Your task to perform on an android device: turn on priority inbox in the gmail app Image 0: 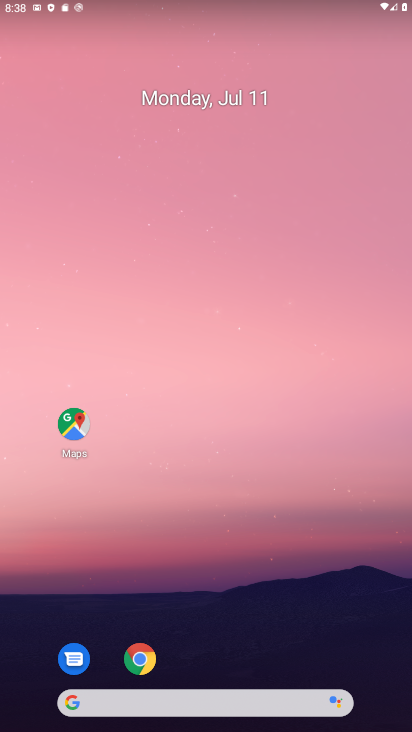
Step 0: drag from (207, 716) to (160, 168)
Your task to perform on an android device: turn on priority inbox in the gmail app Image 1: 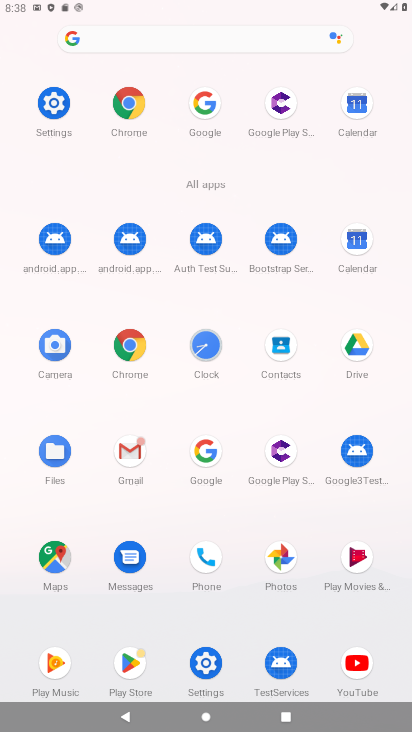
Step 1: click (137, 453)
Your task to perform on an android device: turn on priority inbox in the gmail app Image 2: 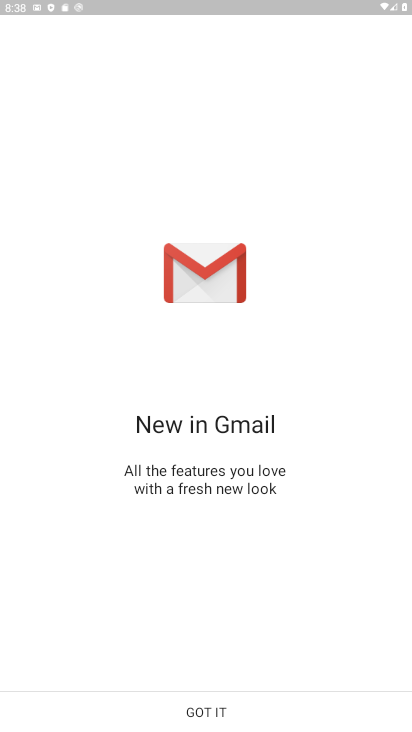
Step 2: click (203, 702)
Your task to perform on an android device: turn on priority inbox in the gmail app Image 3: 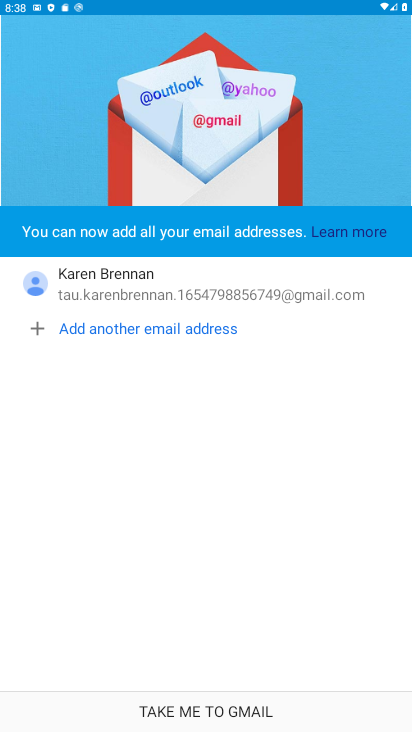
Step 3: click (200, 713)
Your task to perform on an android device: turn on priority inbox in the gmail app Image 4: 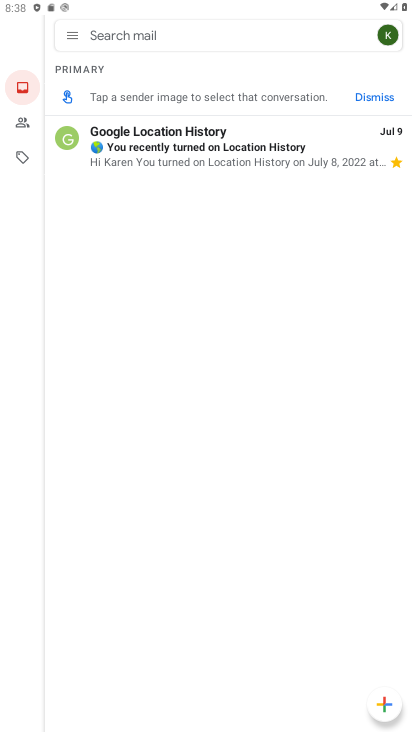
Step 4: click (71, 34)
Your task to perform on an android device: turn on priority inbox in the gmail app Image 5: 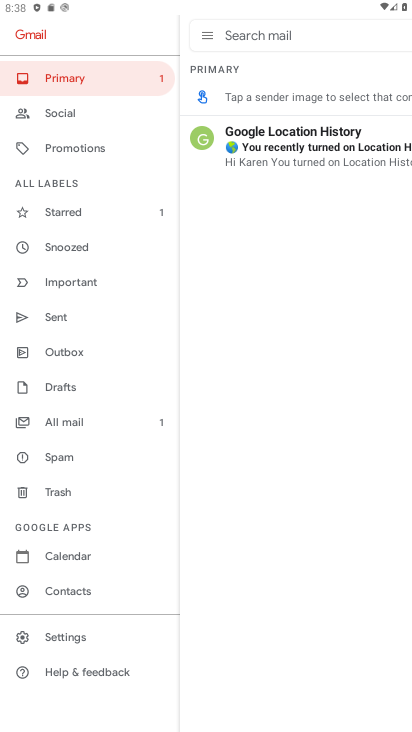
Step 5: click (67, 639)
Your task to perform on an android device: turn on priority inbox in the gmail app Image 6: 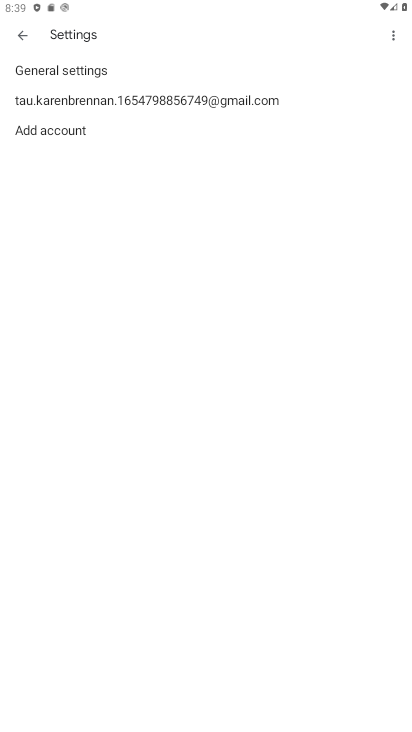
Step 6: click (112, 101)
Your task to perform on an android device: turn on priority inbox in the gmail app Image 7: 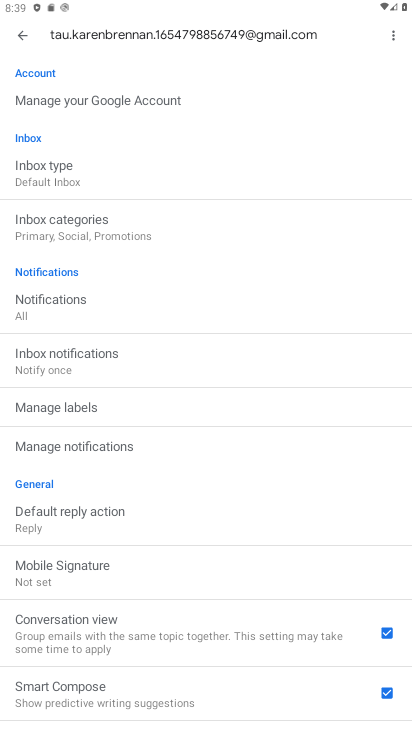
Step 7: click (43, 176)
Your task to perform on an android device: turn on priority inbox in the gmail app Image 8: 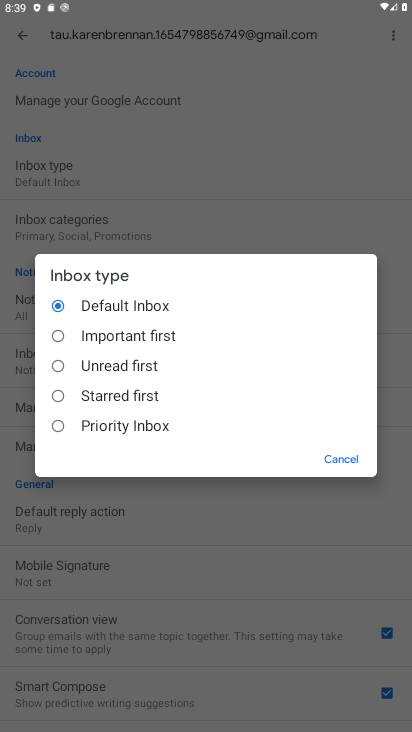
Step 8: click (55, 423)
Your task to perform on an android device: turn on priority inbox in the gmail app Image 9: 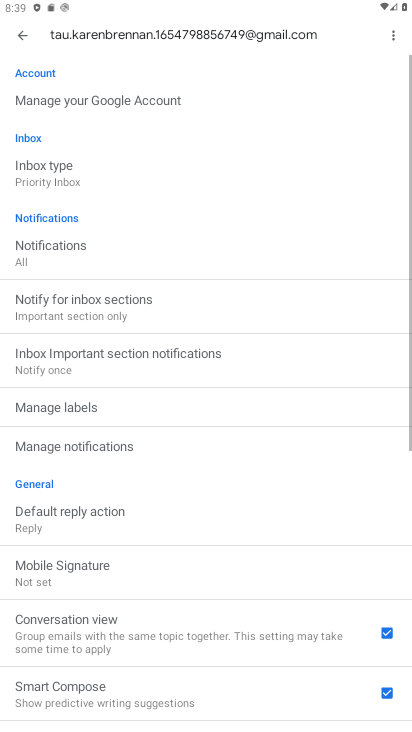
Step 9: task complete